Your task to perform on an android device: Turn off the flashlight Image 0: 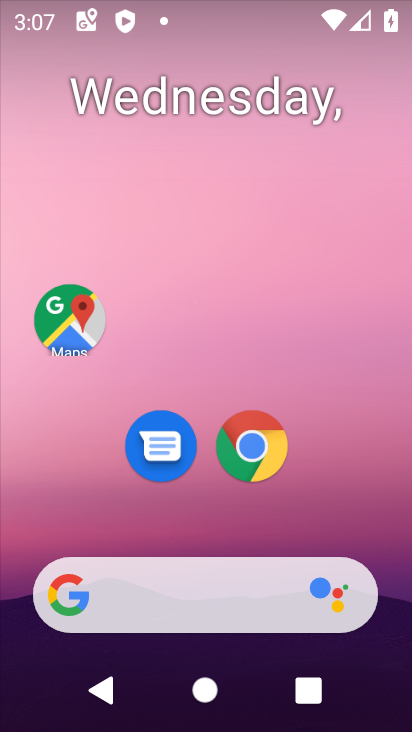
Step 0: drag from (212, 487) to (248, 7)
Your task to perform on an android device: Turn off the flashlight Image 1: 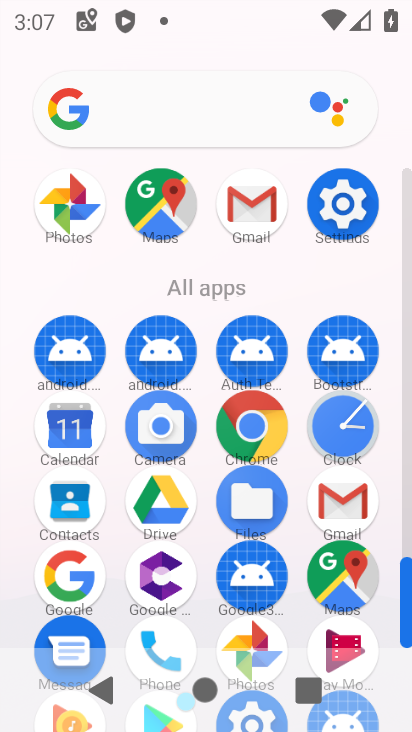
Step 1: click (343, 207)
Your task to perform on an android device: Turn off the flashlight Image 2: 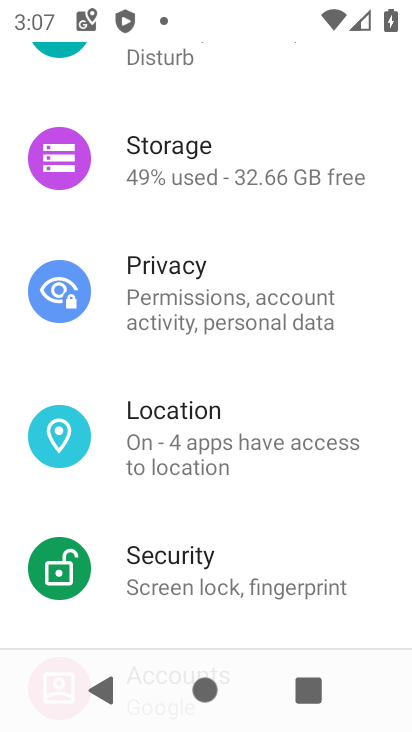
Step 2: drag from (204, 158) to (323, 621)
Your task to perform on an android device: Turn off the flashlight Image 3: 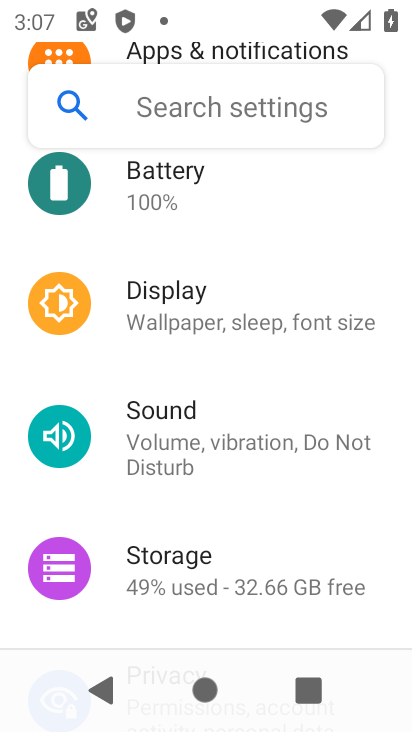
Step 3: click (206, 118)
Your task to perform on an android device: Turn off the flashlight Image 4: 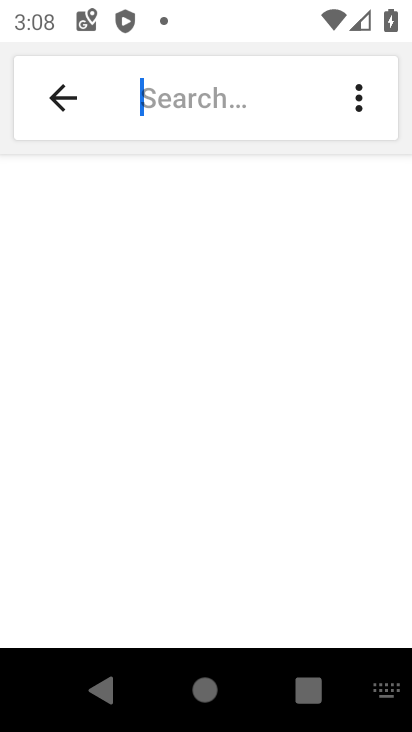
Step 4: type "flash"
Your task to perform on an android device: Turn off the flashlight Image 5: 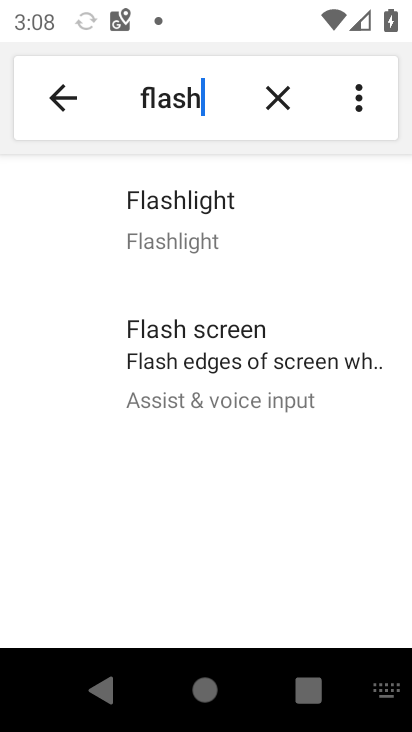
Step 5: task complete